Your task to perform on an android device: delete location history Image 0: 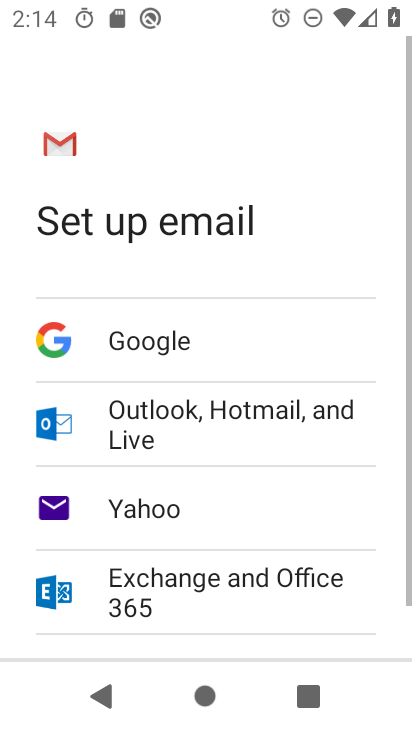
Step 0: press back button
Your task to perform on an android device: delete location history Image 1: 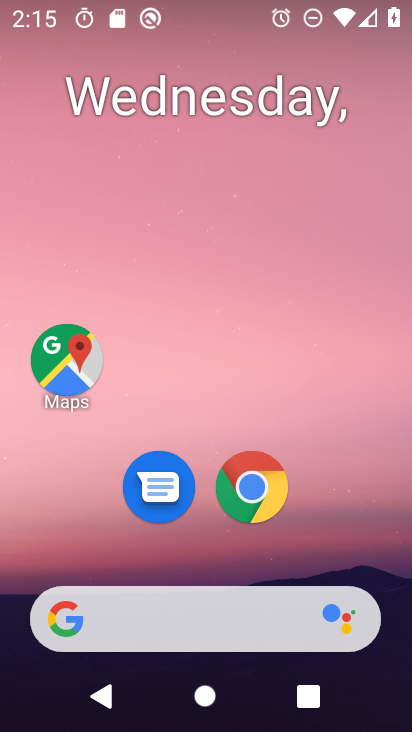
Step 1: click (69, 372)
Your task to perform on an android device: delete location history Image 2: 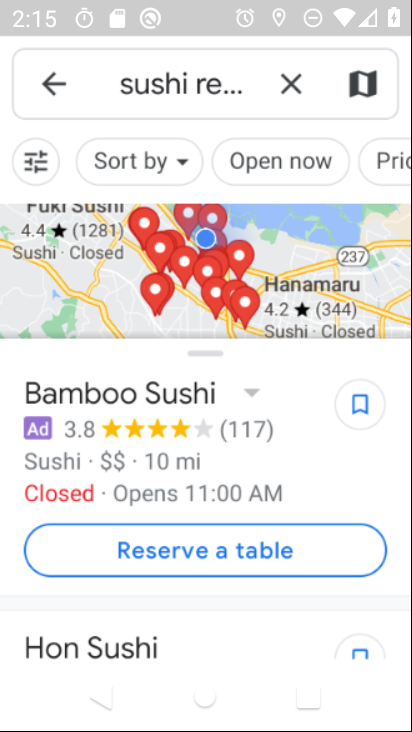
Step 2: click (62, 77)
Your task to perform on an android device: delete location history Image 3: 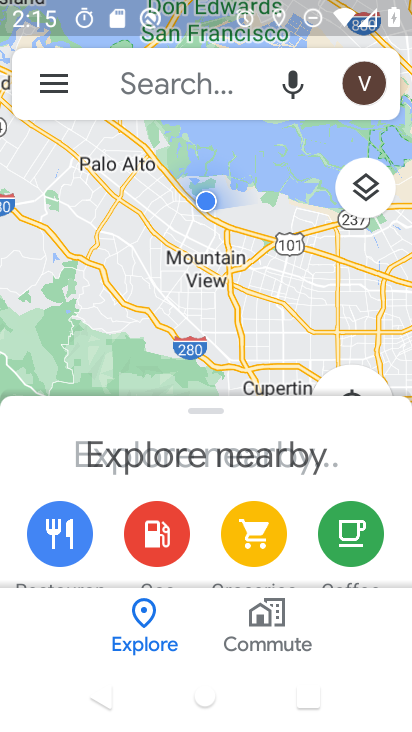
Step 3: click (62, 77)
Your task to perform on an android device: delete location history Image 4: 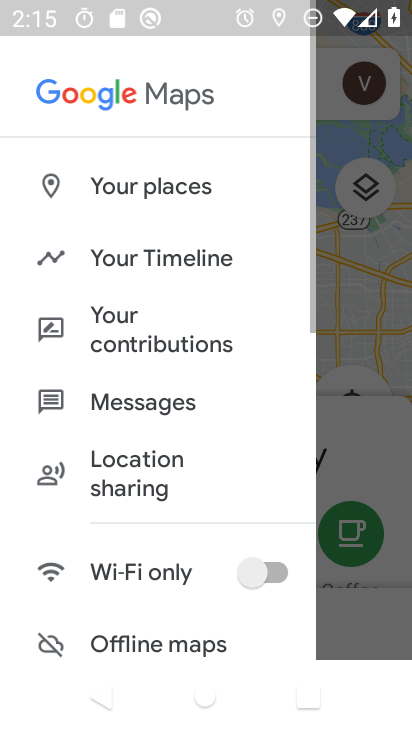
Step 4: click (135, 257)
Your task to perform on an android device: delete location history Image 5: 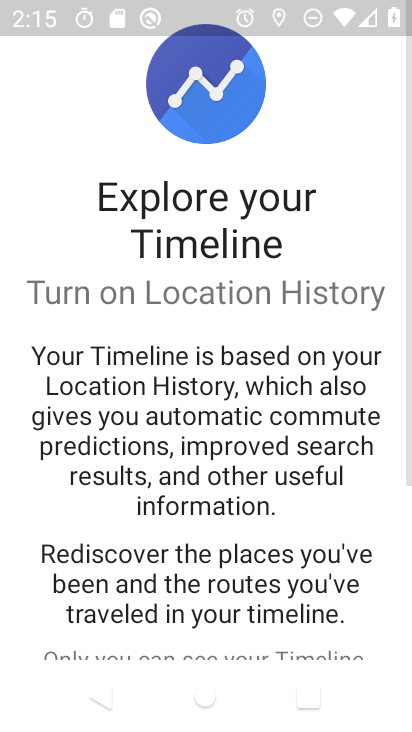
Step 5: drag from (185, 616) to (276, 81)
Your task to perform on an android device: delete location history Image 6: 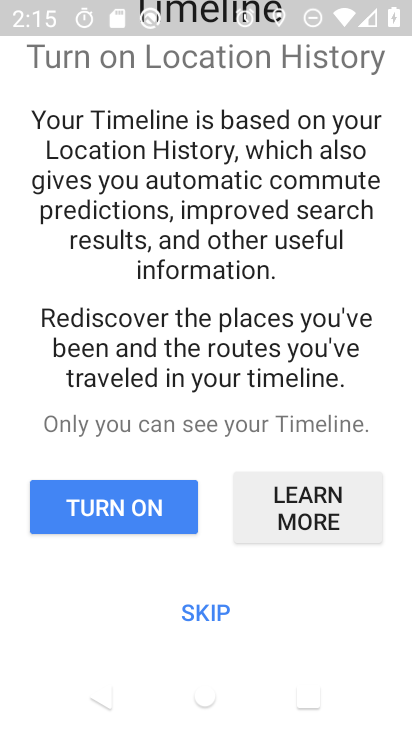
Step 6: click (204, 591)
Your task to perform on an android device: delete location history Image 7: 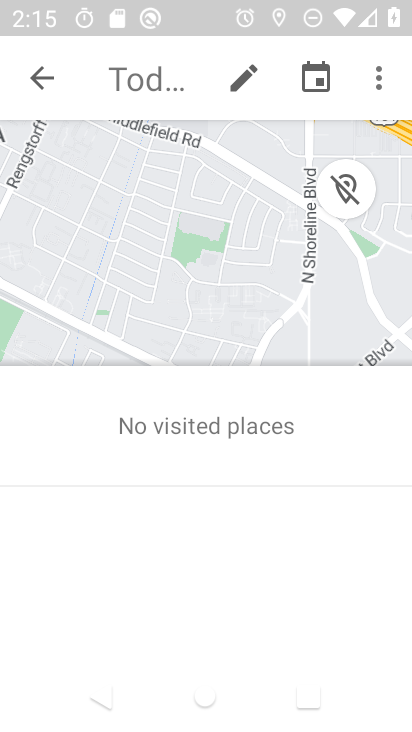
Step 7: click (373, 76)
Your task to perform on an android device: delete location history Image 8: 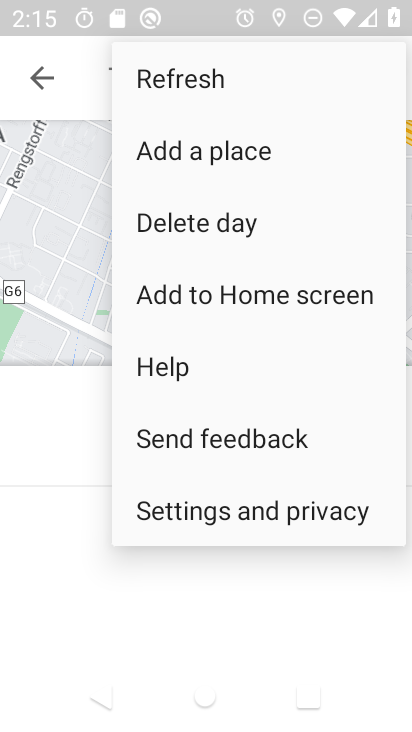
Step 8: click (217, 516)
Your task to perform on an android device: delete location history Image 9: 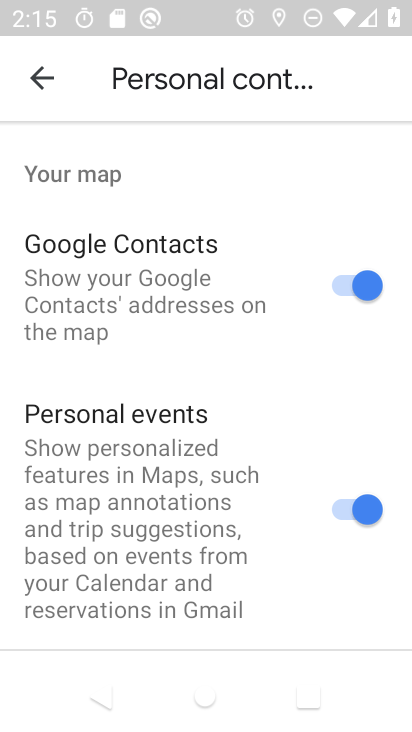
Step 9: drag from (269, 208) to (271, 98)
Your task to perform on an android device: delete location history Image 10: 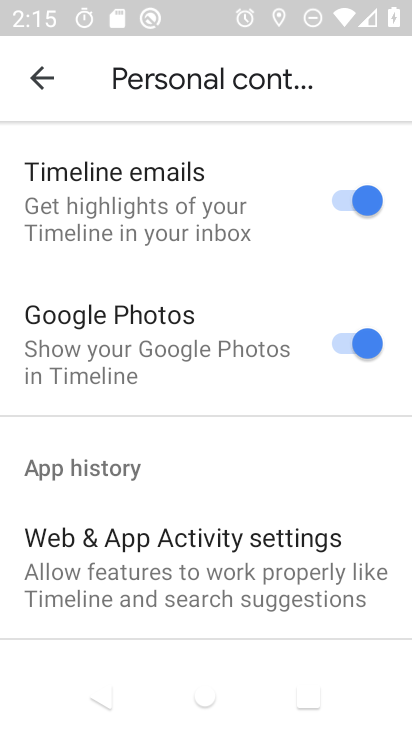
Step 10: drag from (205, 570) to (327, 4)
Your task to perform on an android device: delete location history Image 11: 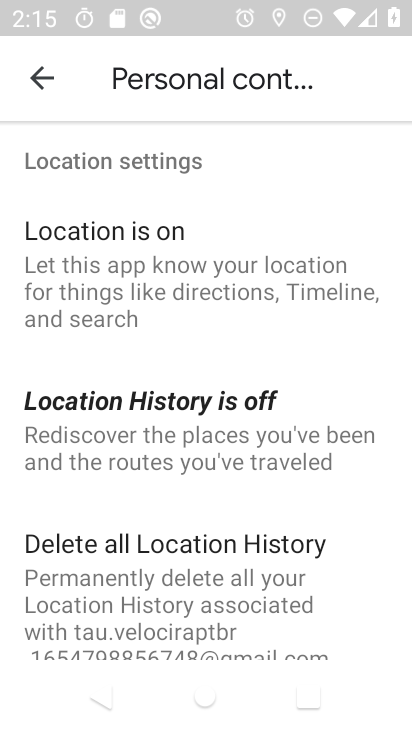
Step 11: drag from (171, 545) to (231, 331)
Your task to perform on an android device: delete location history Image 12: 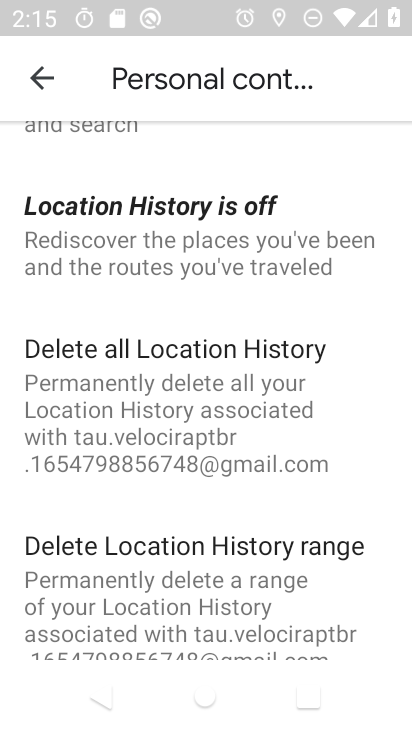
Step 12: click (170, 377)
Your task to perform on an android device: delete location history Image 13: 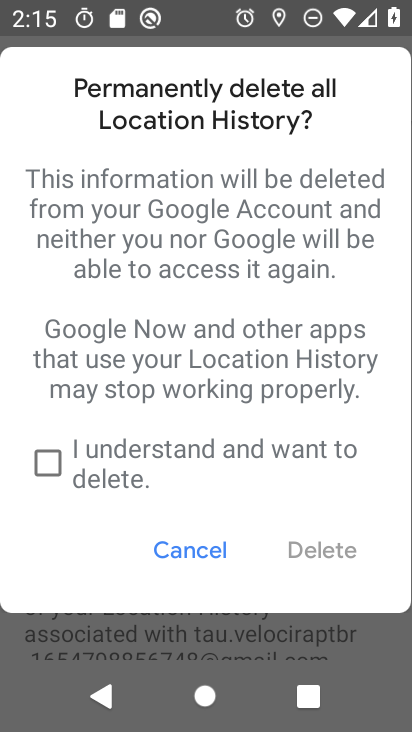
Step 13: click (65, 478)
Your task to perform on an android device: delete location history Image 14: 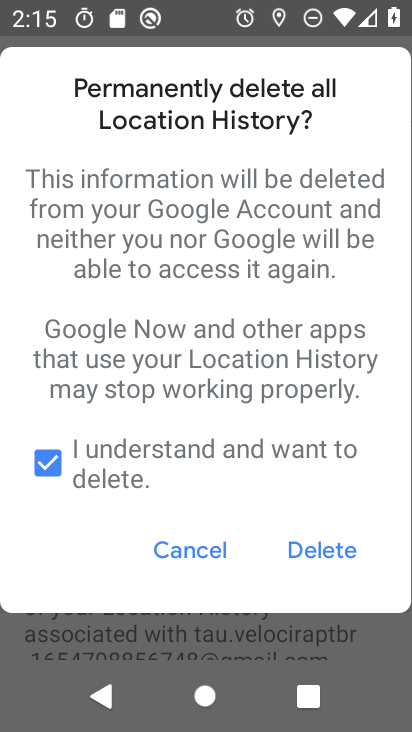
Step 14: click (303, 555)
Your task to perform on an android device: delete location history Image 15: 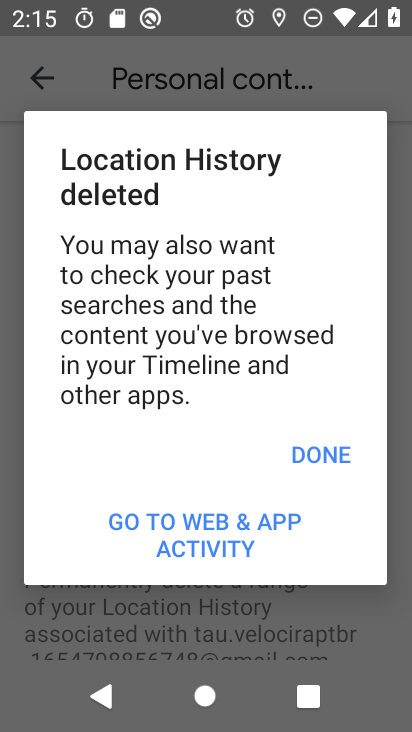
Step 15: click (320, 434)
Your task to perform on an android device: delete location history Image 16: 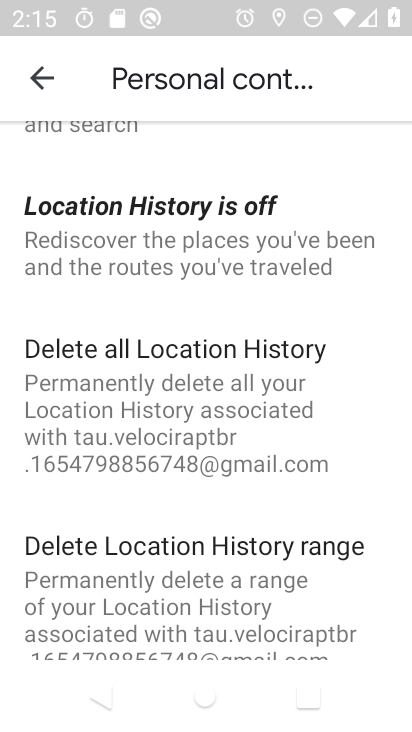
Step 16: task complete